Your task to perform on an android device: open chrome privacy settings Image 0: 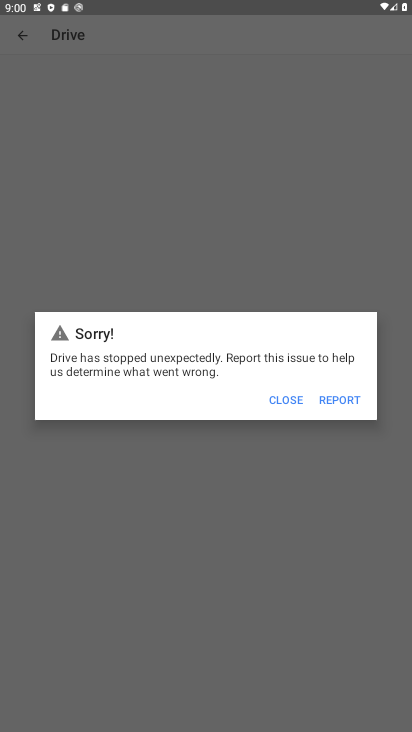
Step 0: press home button
Your task to perform on an android device: open chrome privacy settings Image 1: 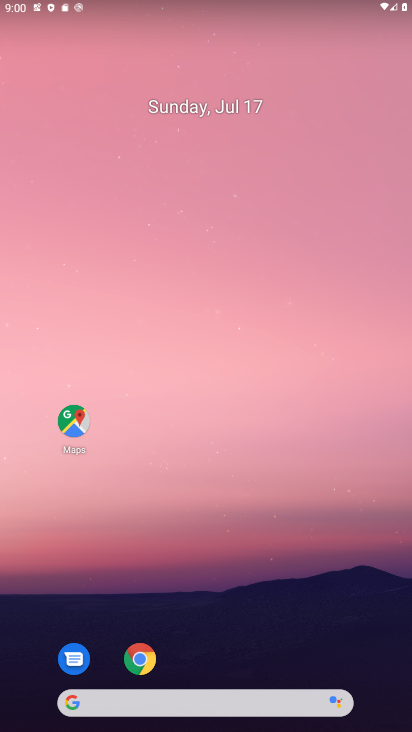
Step 1: click (141, 671)
Your task to perform on an android device: open chrome privacy settings Image 2: 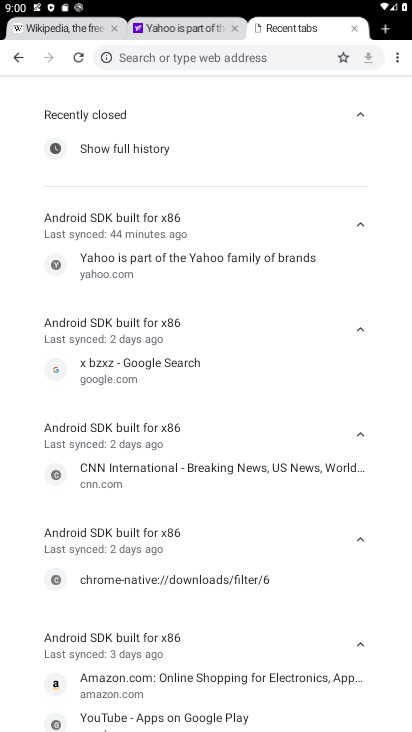
Step 2: click (399, 59)
Your task to perform on an android device: open chrome privacy settings Image 3: 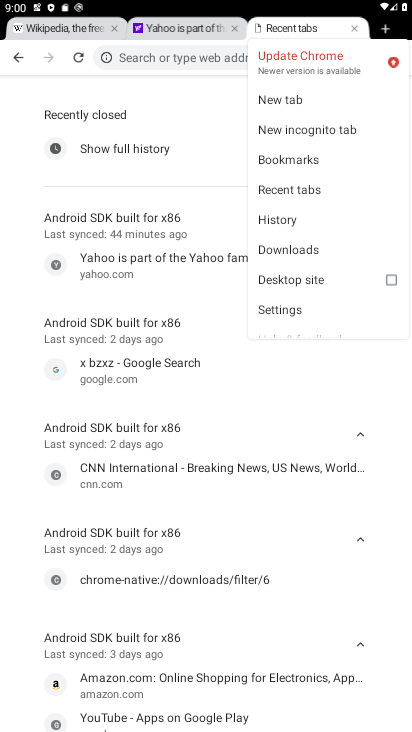
Step 3: click (300, 303)
Your task to perform on an android device: open chrome privacy settings Image 4: 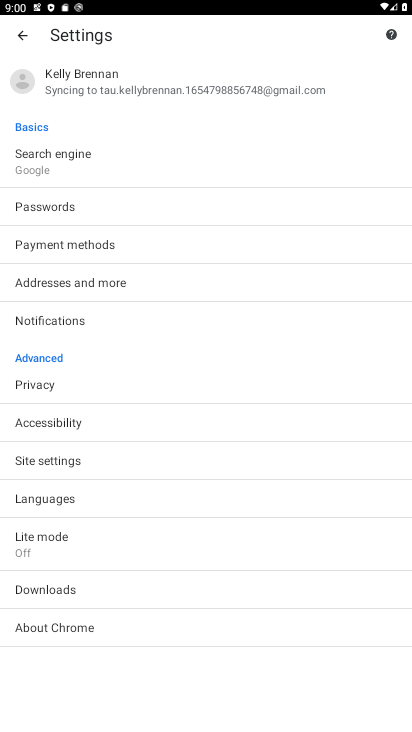
Step 4: click (77, 393)
Your task to perform on an android device: open chrome privacy settings Image 5: 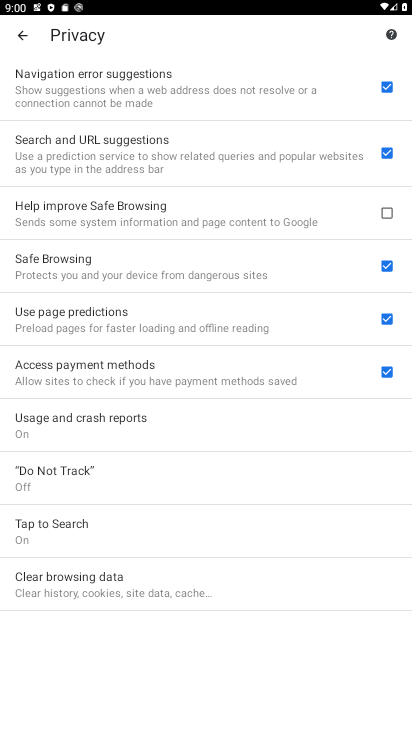
Step 5: task complete